Your task to perform on an android device: Go to location settings Image 0: 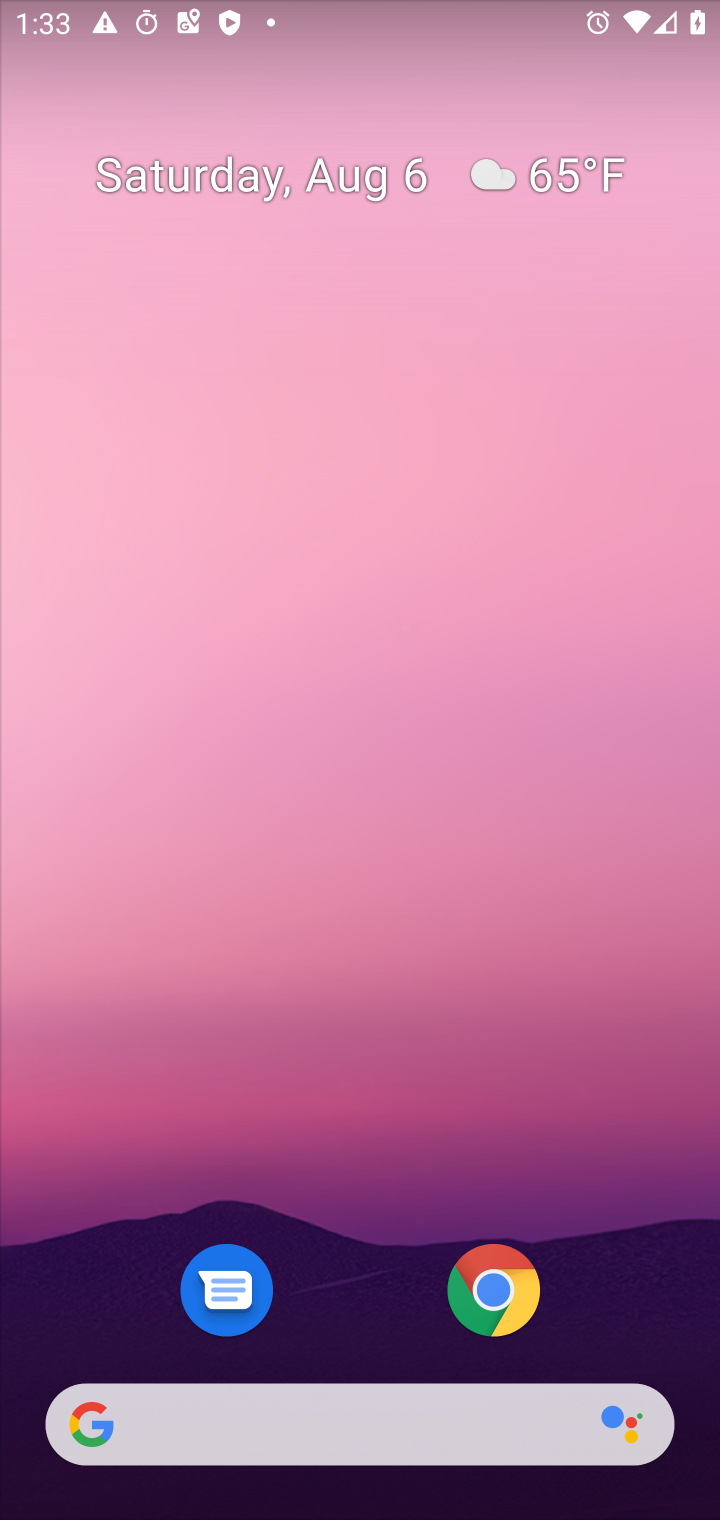
Step 0: press home button
Your task to perform on an android device: Go to location settings Image 1: 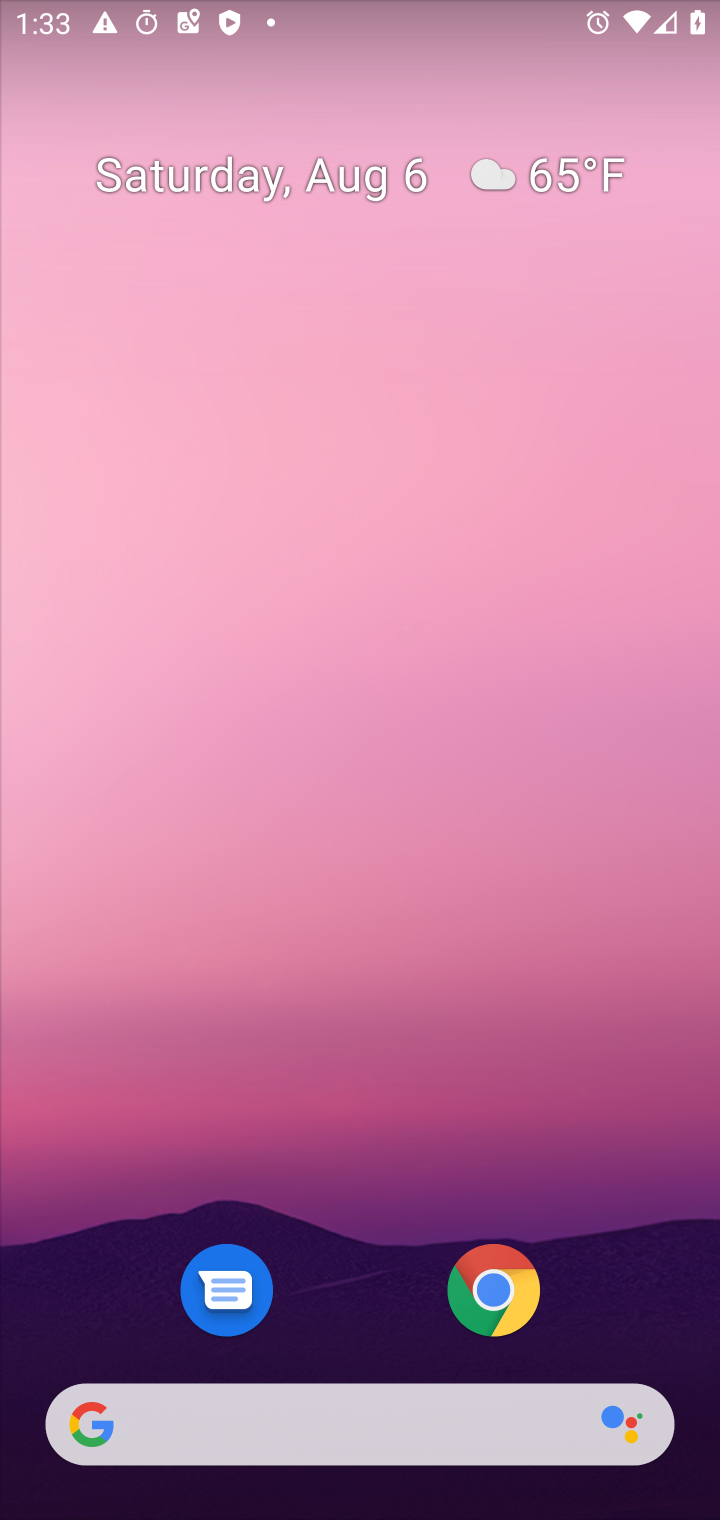
Step 1: drag from (377, 1260) to (402, 109)
Your task to perform on an android device: Go to location settings Image 2: 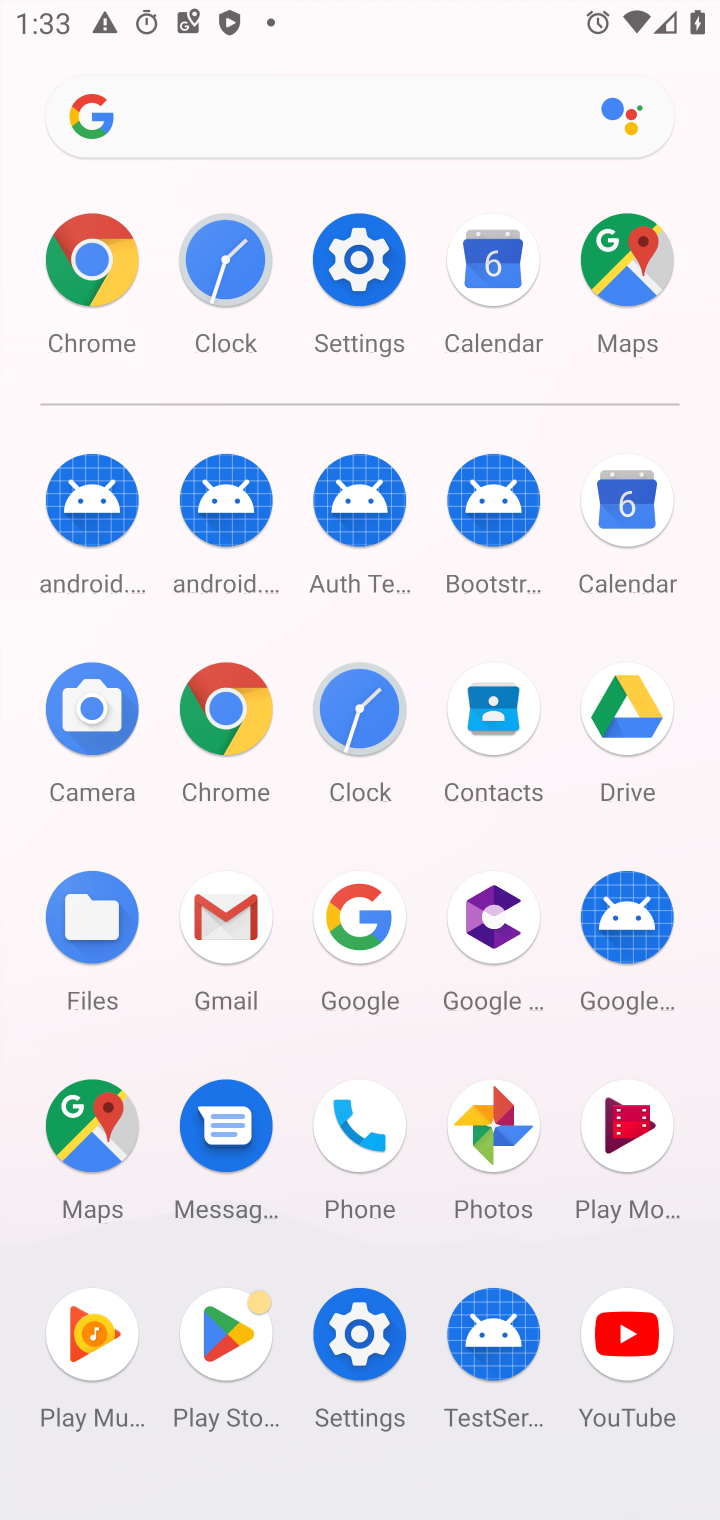
Step 2: click (357, 264)
Your task to perform on an android device: Go to location settings Image 3: 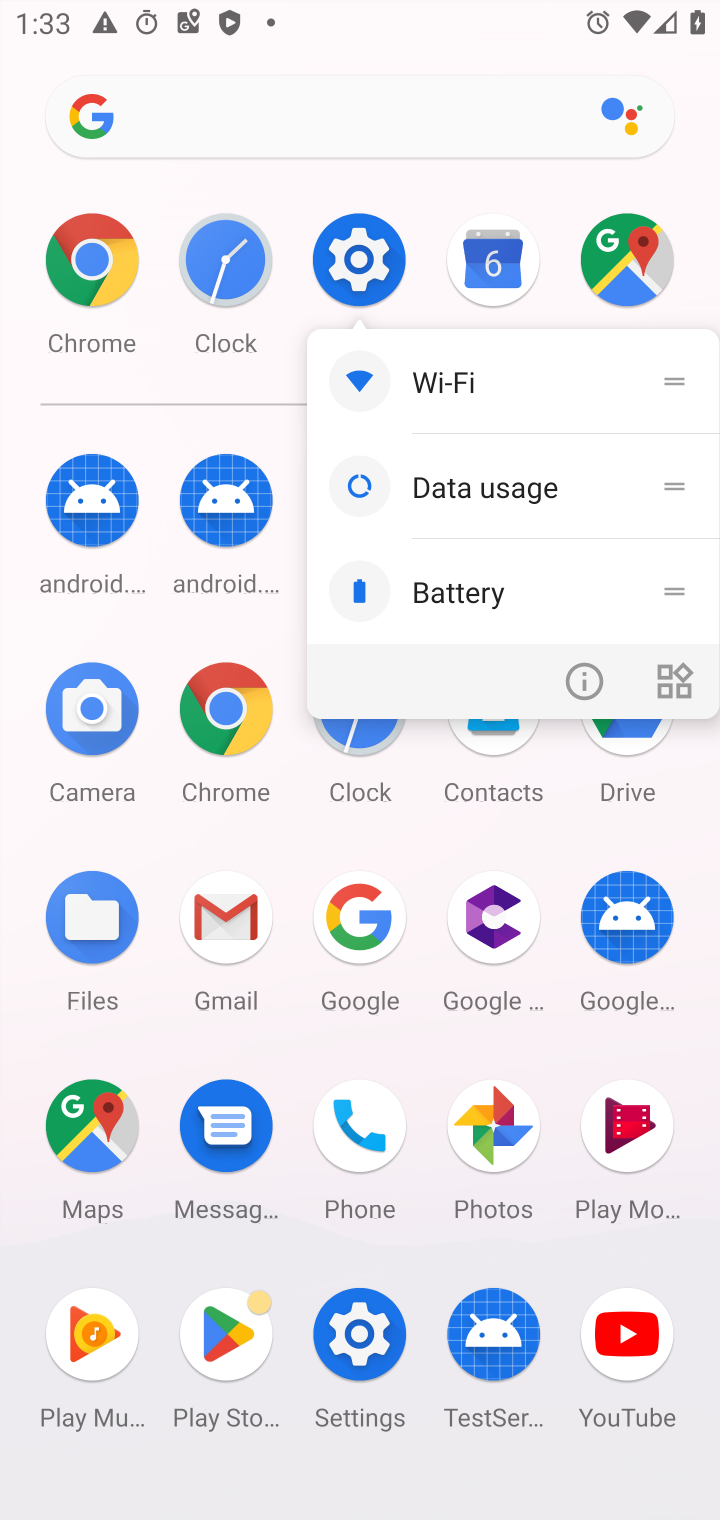
Step 3: click (348, 265)
Your task to perform on an android device: Go to location settings Image 4: 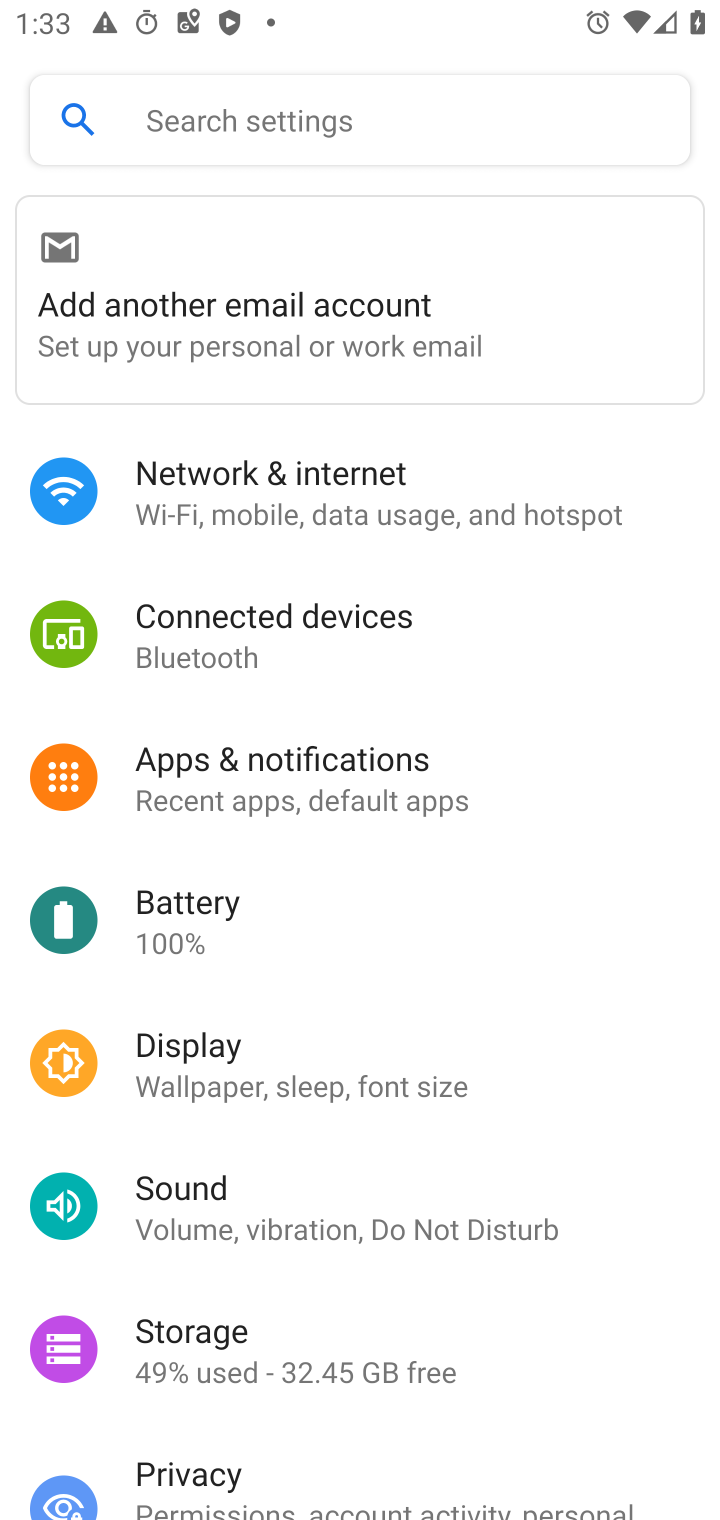
Step 4: drag from (342, 1381) to (421, 327)
Your task to perform on an android device: Go to location settings Image 5: 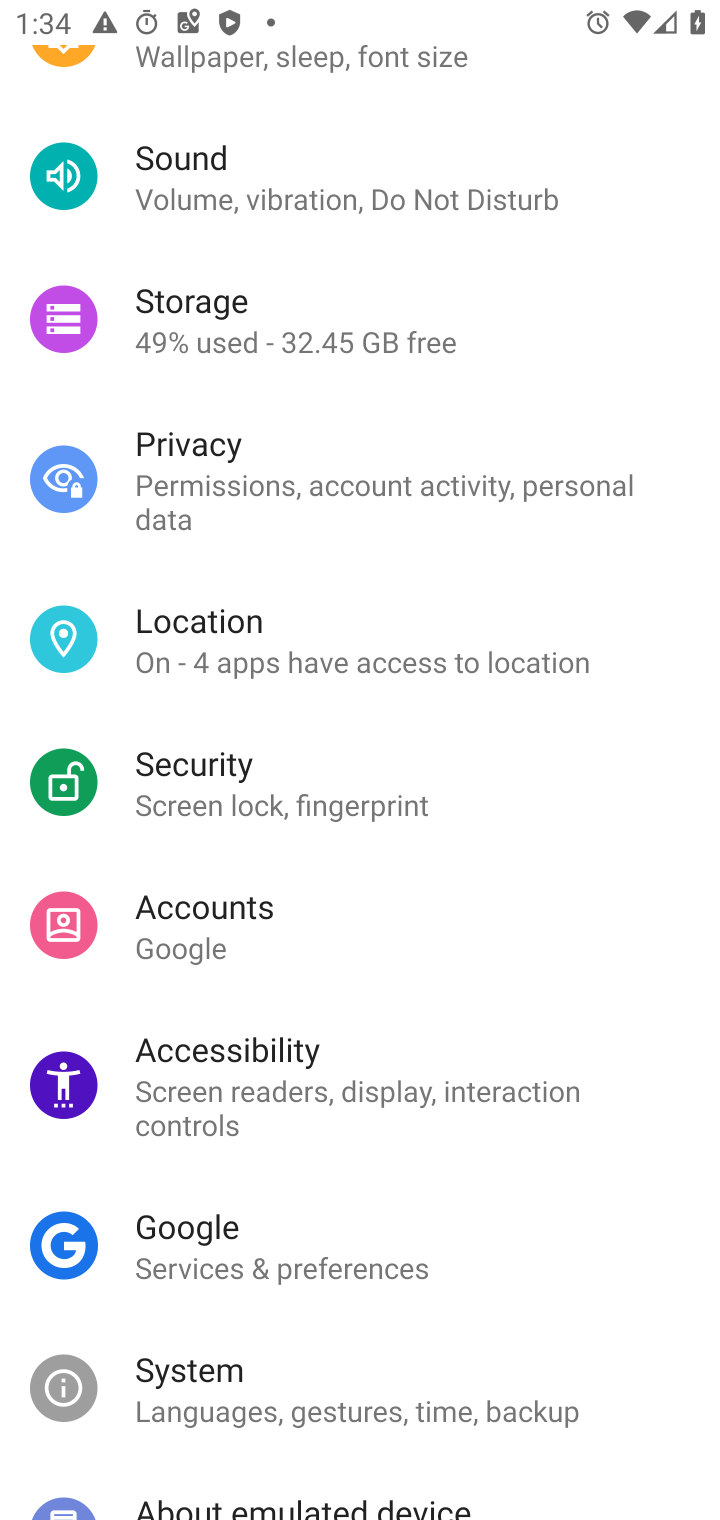
Step 5: click (239, 624)
Your task to perform on an android device: Go to location settings Image 6: 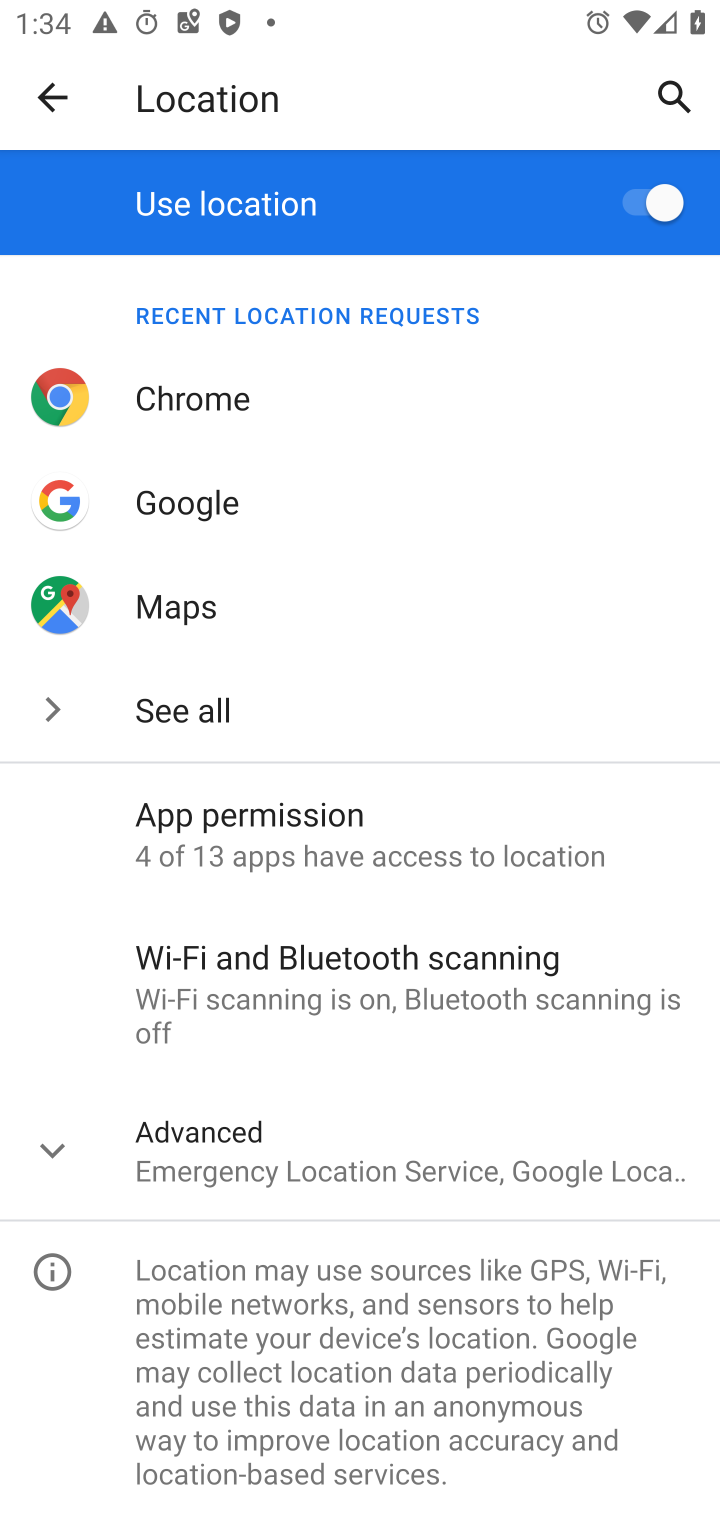
Step 6: click (149, 1152)
Your task to perform on an android device: Go to location settings Image 7: 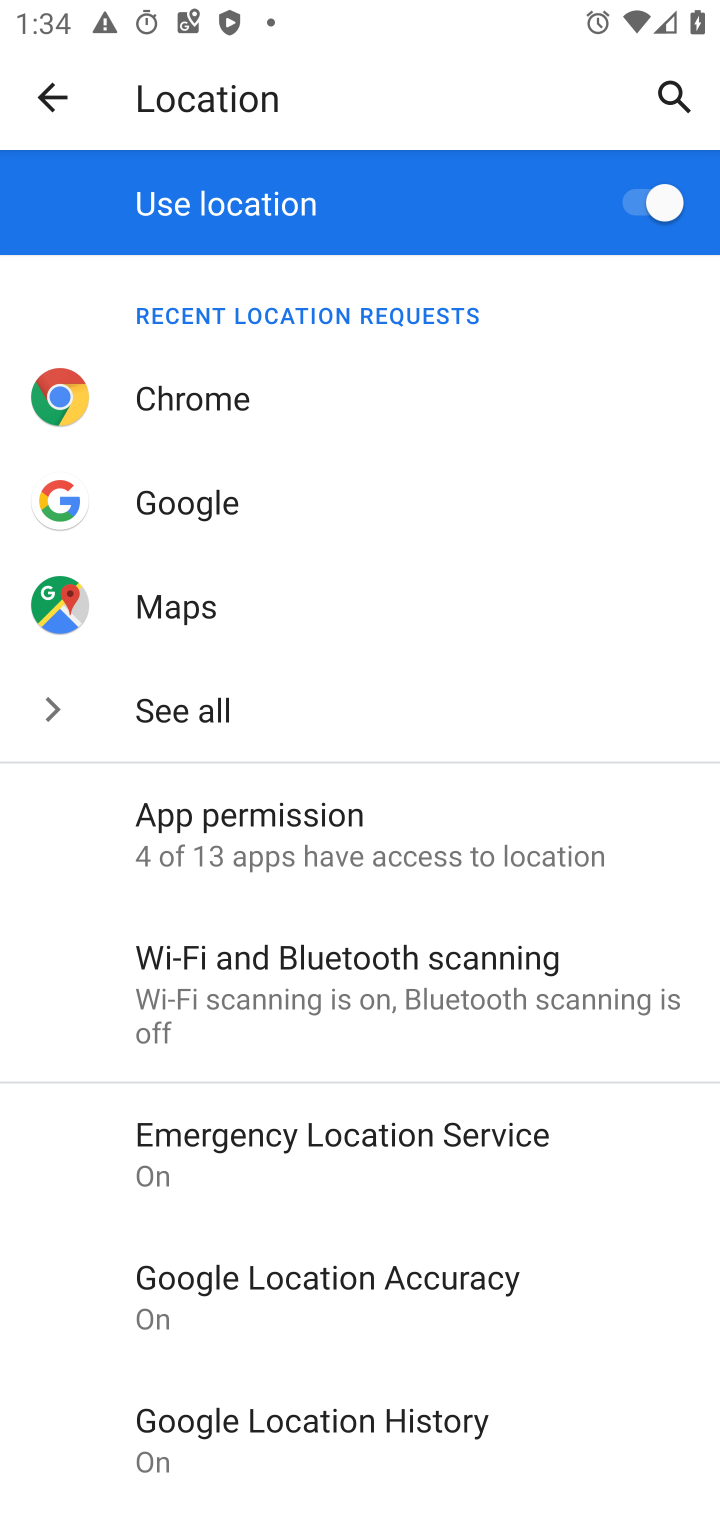
Step 7: task complete